Your task to perform on an android device: Turn off the flashlight Image 0: 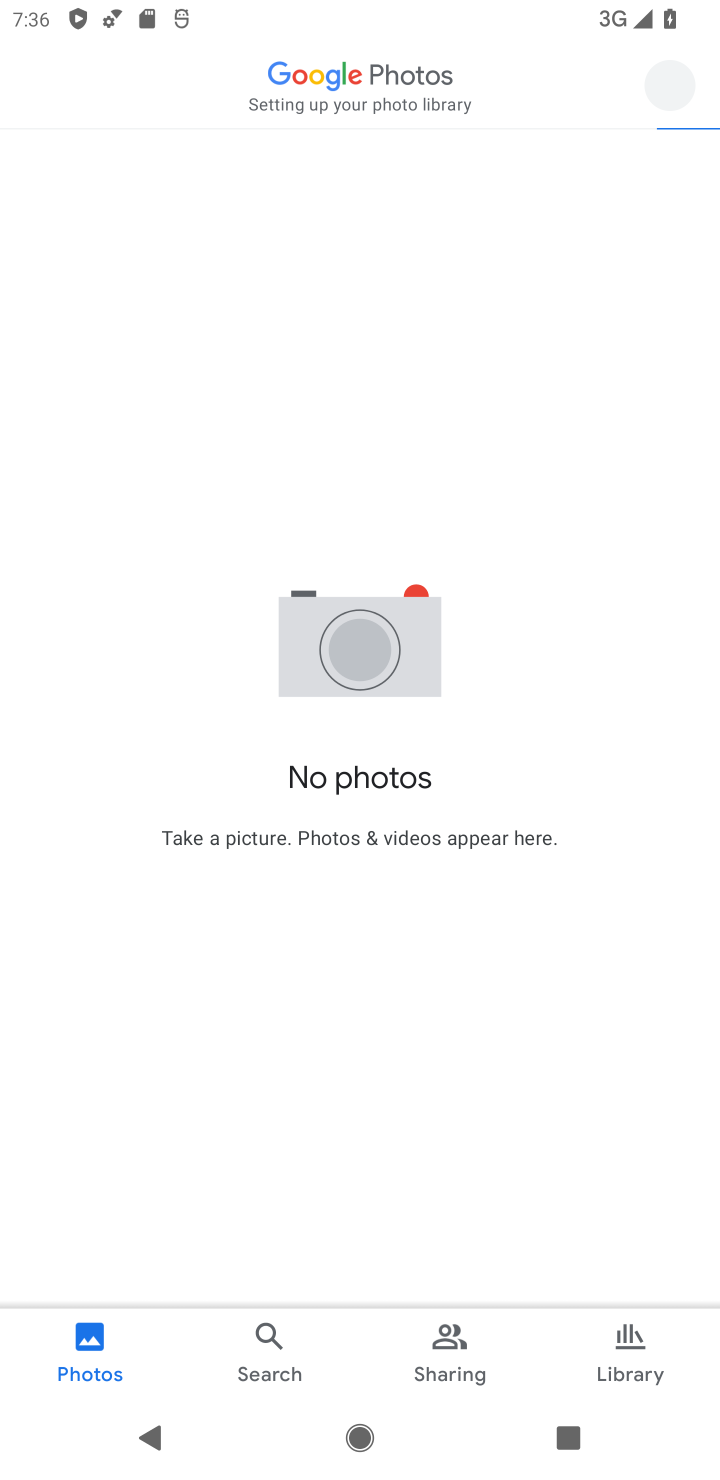
Step 0: press home button
Your task to perform on an android device: Turn off the flashlight Image 1: 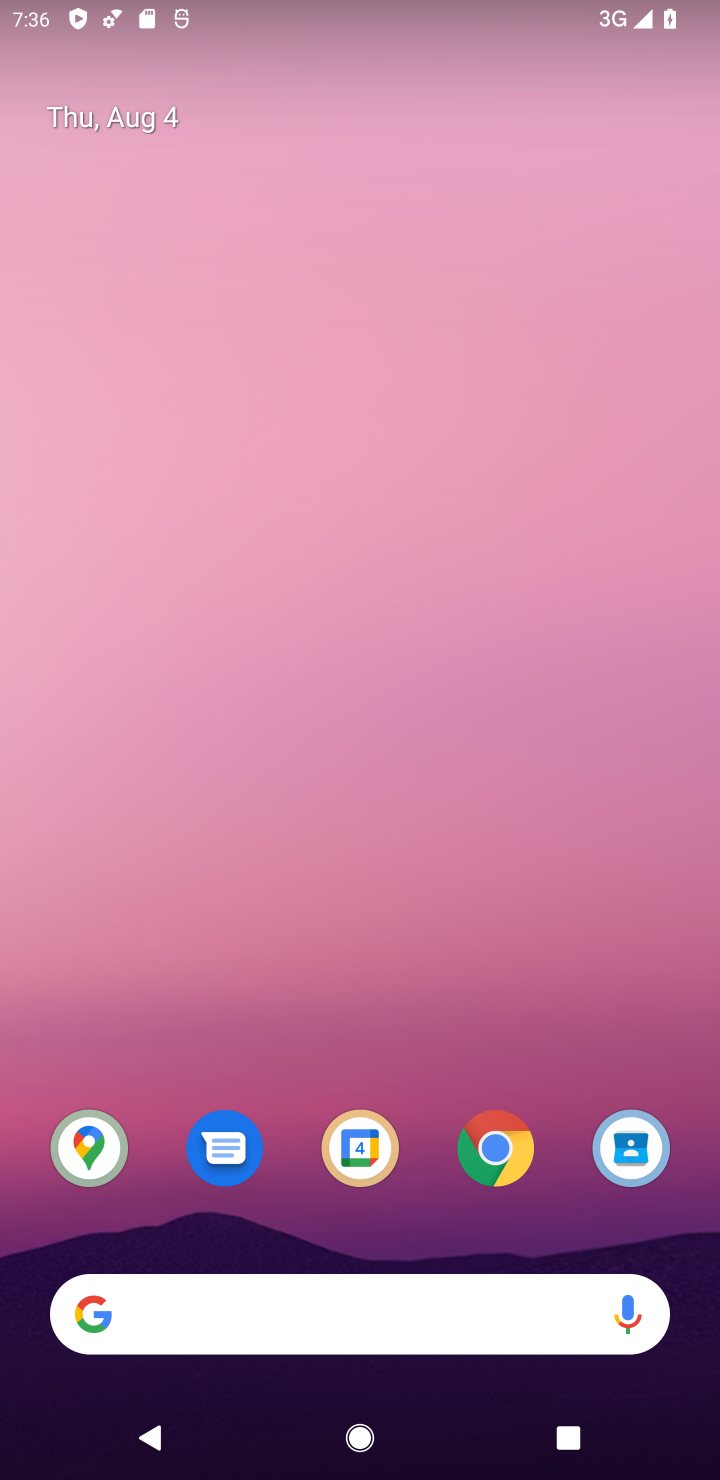
Step 1: task complete